Your task to perform on an android device: Go to settings Image 0: 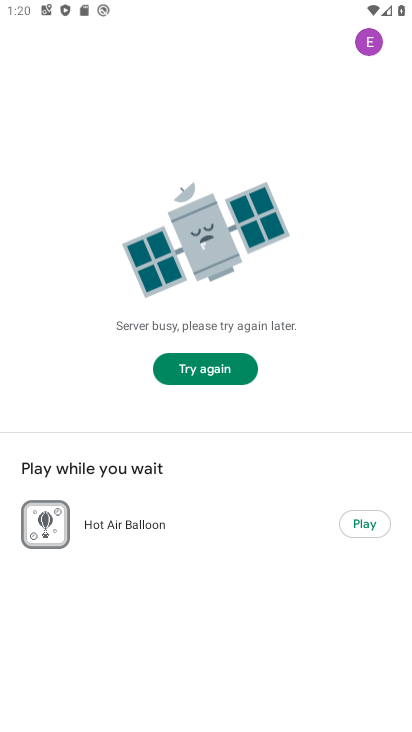
Step 0: press home button
Your task to perform on an android device: Go to settings Image 1: 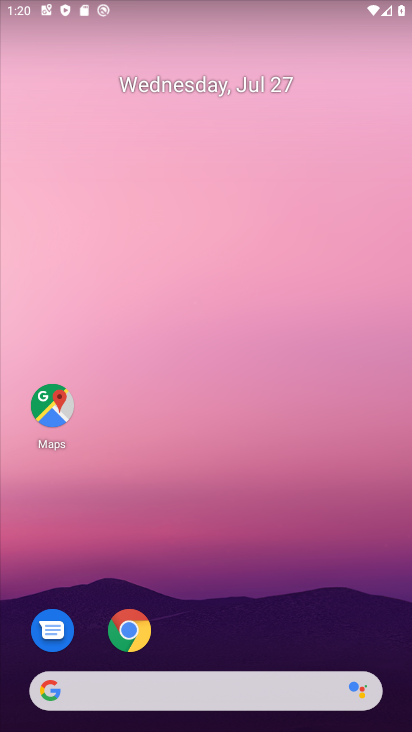
Step 1: drag from (220, 696) to (144, 33)
Your task to perform on an android device: Go to settings Image 2: 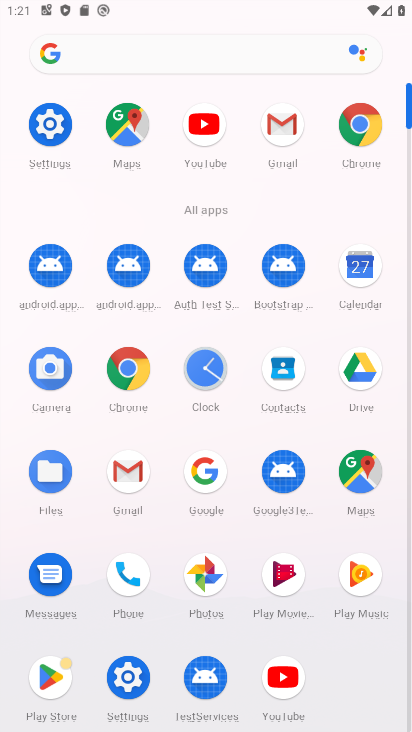
Step 2: click (133, 689)
Your task to perform on an android device: Go to settings Image 3: 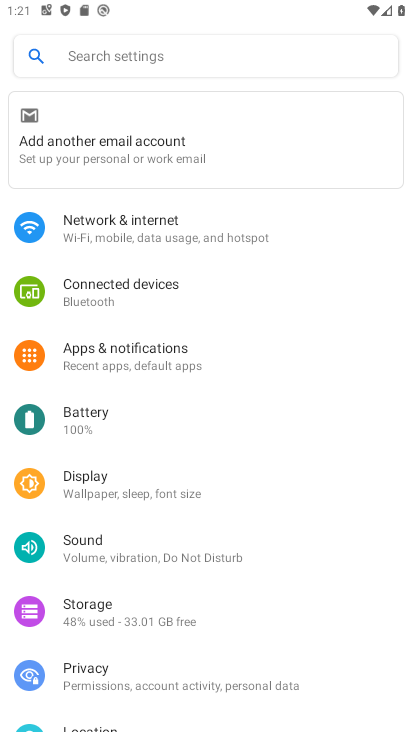
Step 3: task complete